Your task to perform on an android device: Go to settings Image 0: 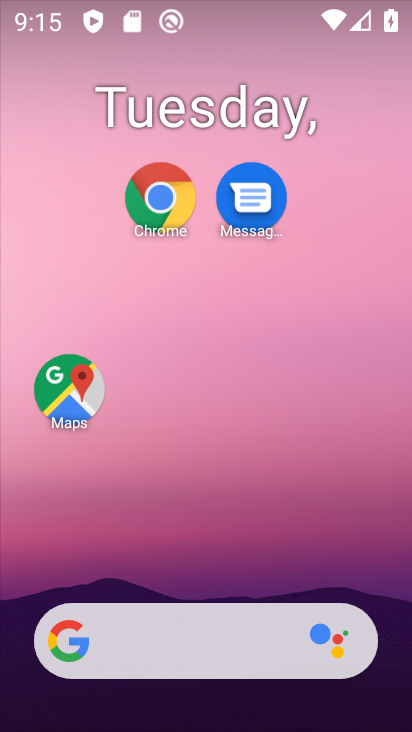
Step 0: drag from (223, 567) to (202, 103)
Your task to perform on an android device: Go to settings Image 1: 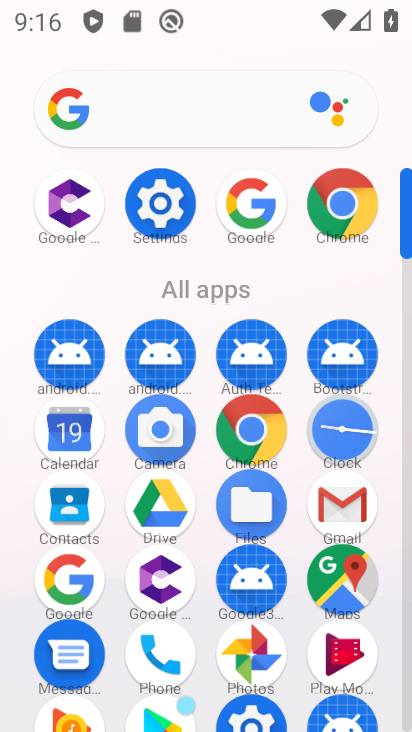
Step 1: click (257, 714)
Your task to perform on an android device: Go to settings Image 2: 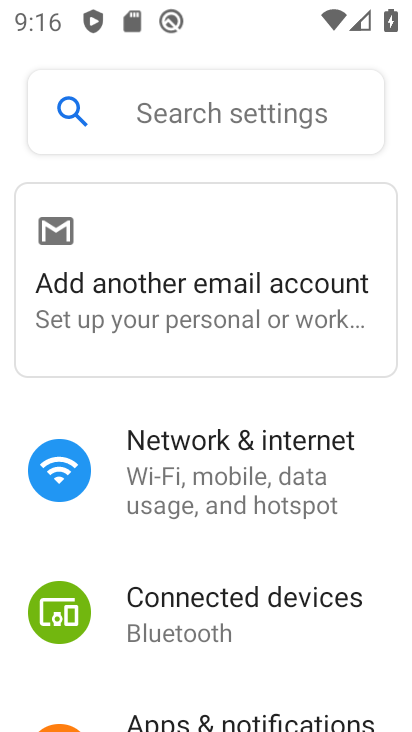
Step 2: task complete